Your task to perform on an android device: allow notifications from all sites in the chrome app Image 0: 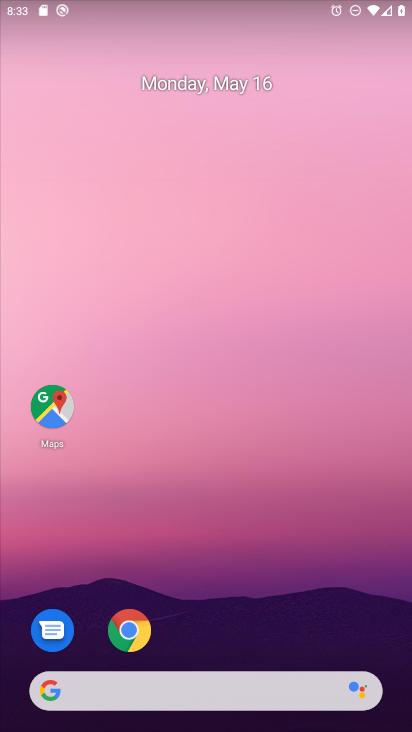
Step 0: click (132, 630)
Your task to perform on an android device: allow notifications from all sites in the chrome app Image 1: 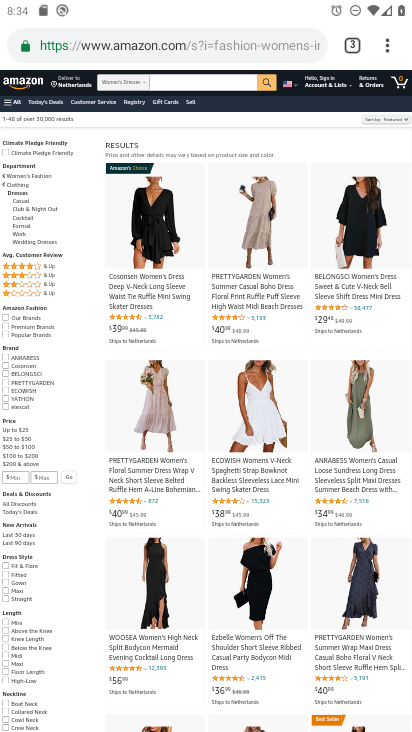
Step 1: click (388, 46)
Your task to perform on an android device: allow notifications from all sites in the chrome app Image 2: 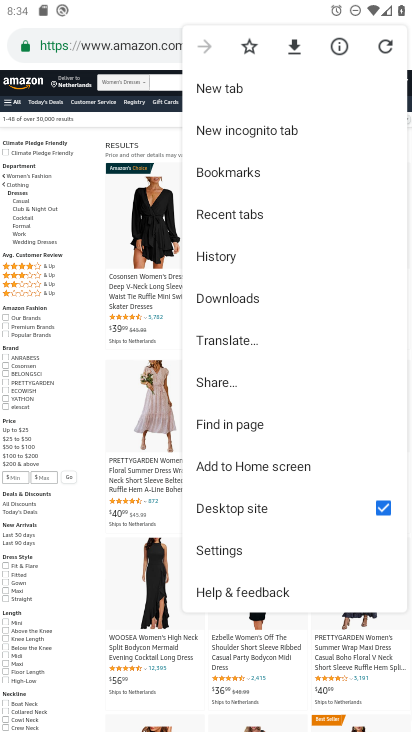
Step 2: drag from (303, 468) to (345, 244)
Your task to perform on an android device: allow notifications from all sites in the chrome app Image 3: 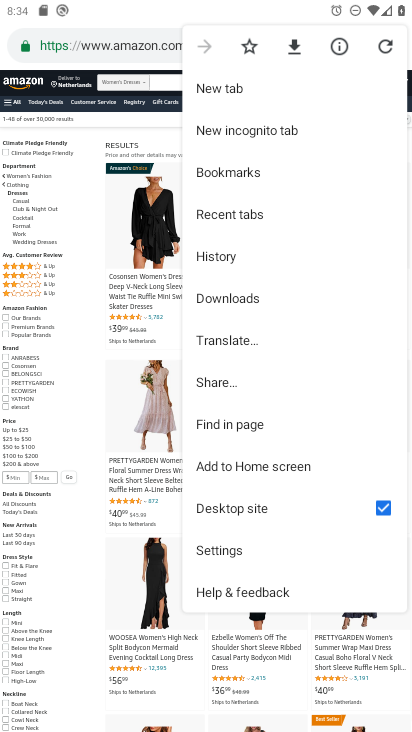
Step 3: click (227, 541)
Your task to perform on an android device: allow notifications from all sites in the chrome app Image 4: 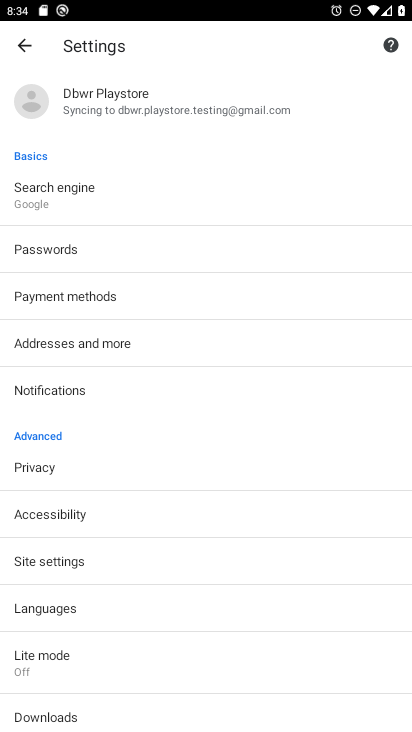
Step 4: click (168, 396)
Your task to perform on an android device: allow notifications from all sites in the chrome app Image 5: 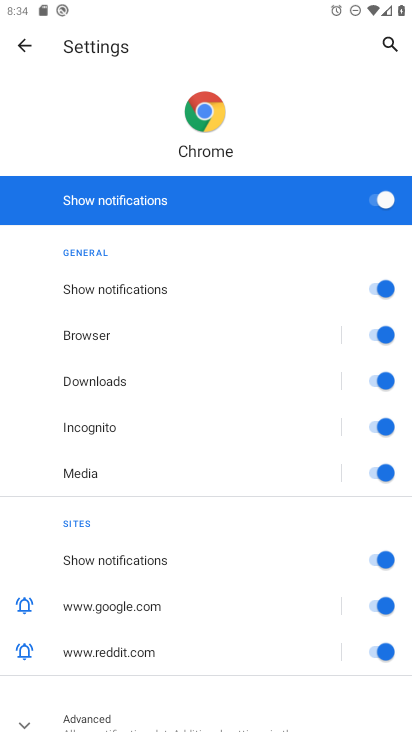
Step 5: drag from (233, 646) to (335, 227)
Your task to perform on an android device: allow notifications from all sites in the chrome app Image 6: 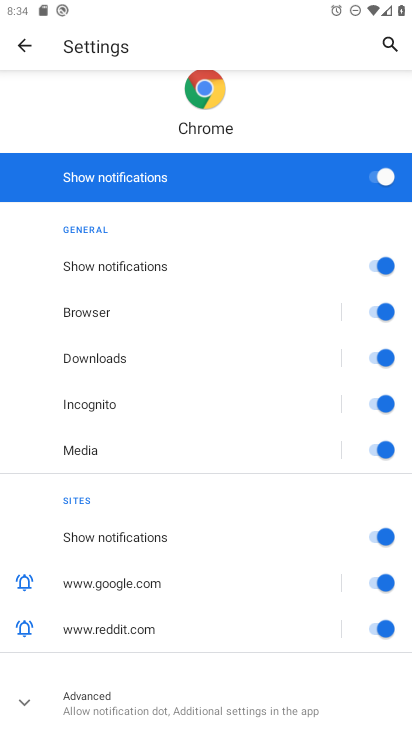
Step 6: click (162, 697)
Your task to perform on an android device: allow notifications from all sites in the chrome app Image 7: 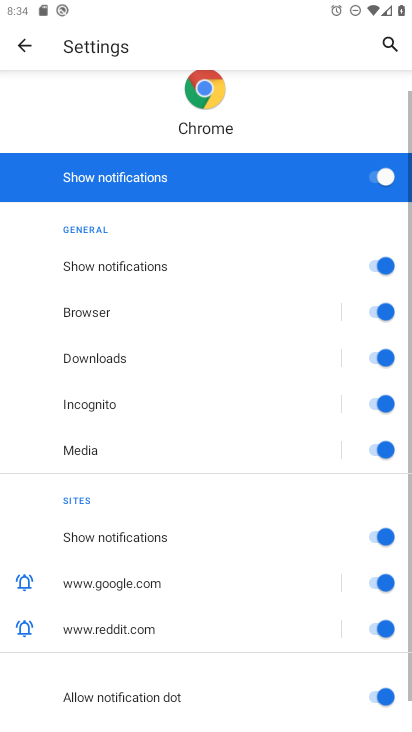
Step 7: task complete